Your task to perform on an android device: toggle translation in the chrome app Image 0: 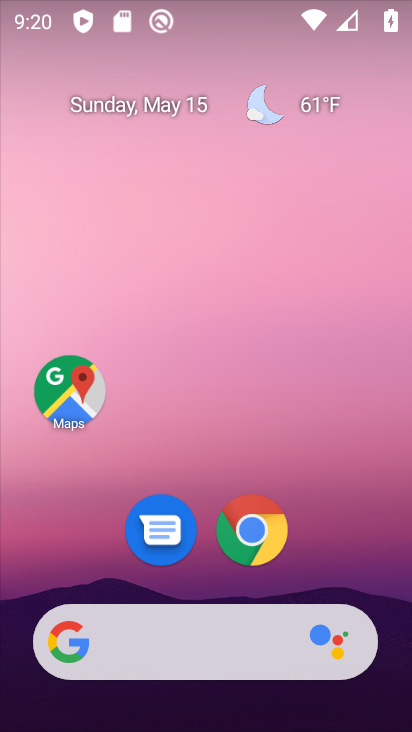
Step 0: click (257, 522)
Your task to perform on an android device: toggle translation in the chrome app Image 1: 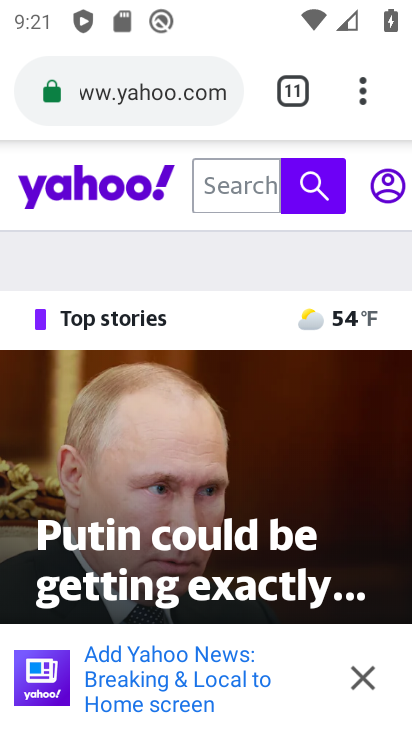
Step 1: click (365, 99)
Your task to perform on an android device: toggle translation in the chrome app Image 2: 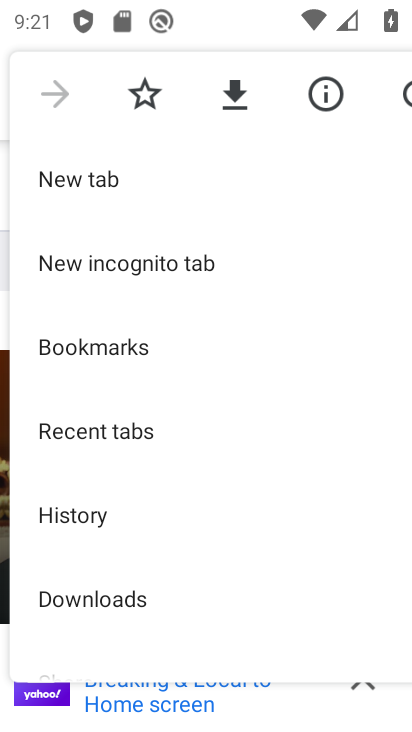
Step 2: drag from (109, 554) to (111, 179)
Your task to perform on an android device: toggle translation in the chrome app Image 3: 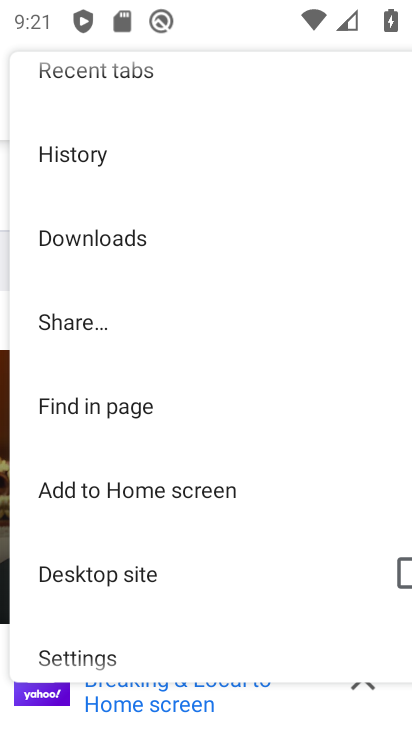
Step 3: drag from (88, 602) to (97, 297)
Your task to perform on an android device: toggle translation in the chrome app Image 4: 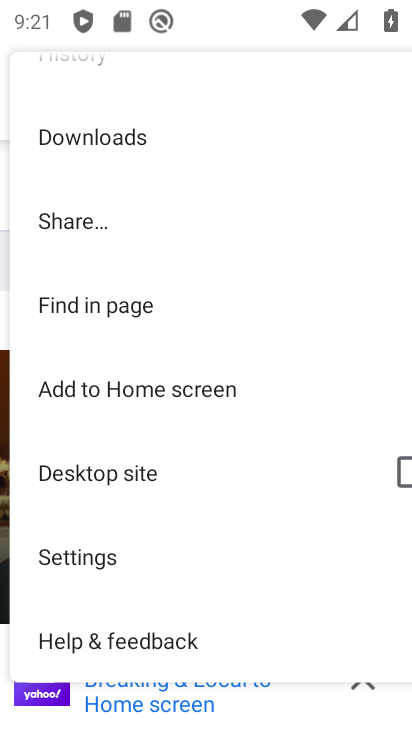
Step 4: click (98, 552)
Your task to perform on an android device: toggle translation in the chrome app Image 5: 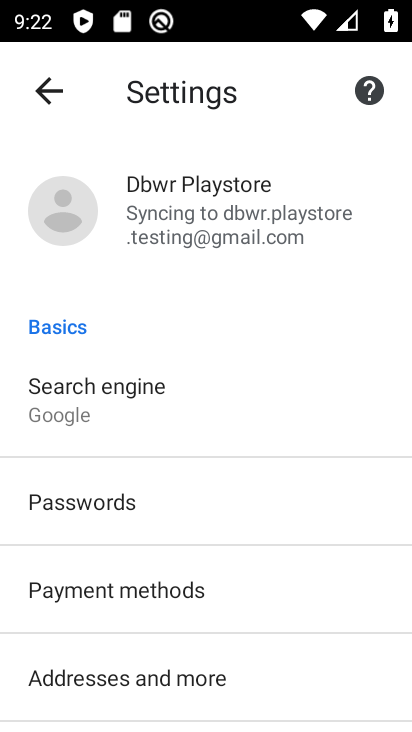
Step 5: drag from (136, 674) to (171, 295)
Your task to perform on an android device: toggle translation in the chrome app Image 6: 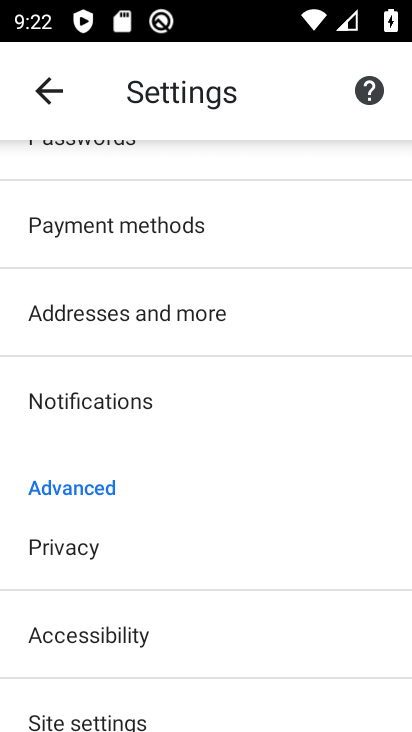
Step 6: drag from (131, 666) to (137, 328)
Your task to perform on an android device: toggle translation in the chrome app Image 7: 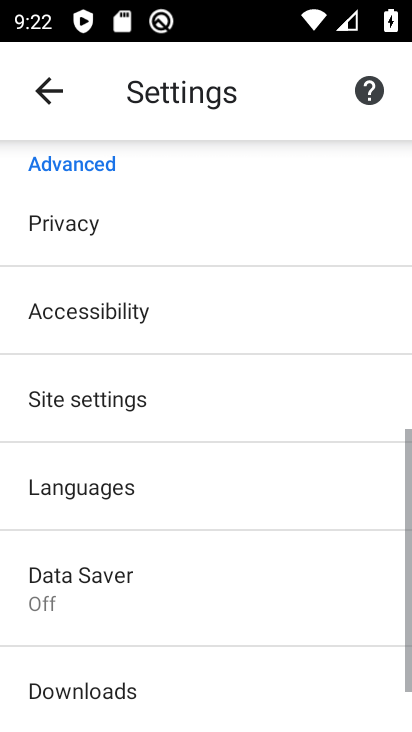
Step 7: click (94, 487)
Your task to perform on an android device: toggle translation in the chrome app Image 8: 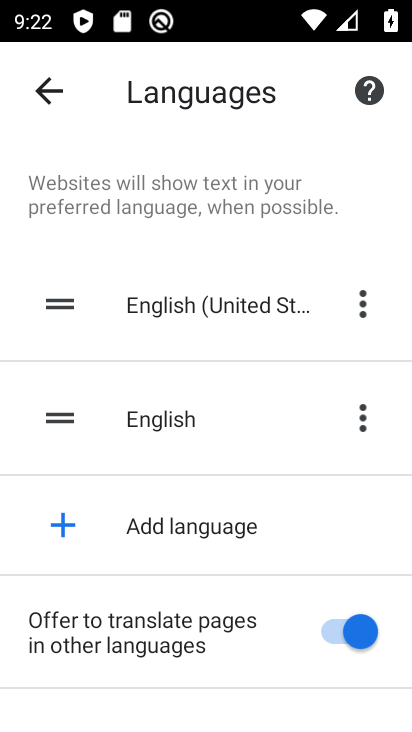
Step 8: click (333, 631)
Your task to perform on an android device: toggle translation in the chrome app Image 9: 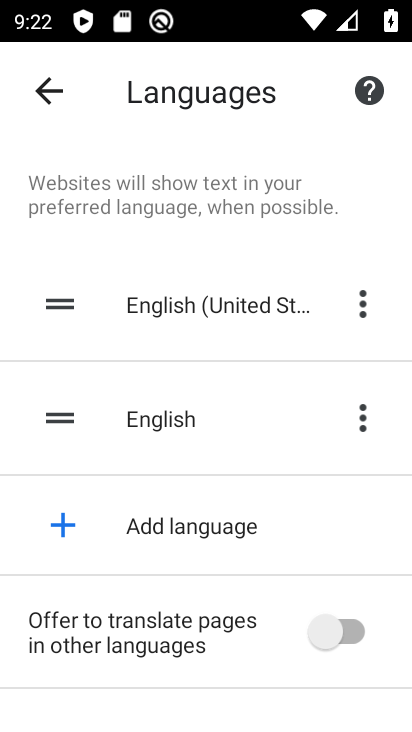
Step 9: task complete